Your task to perform on an android device: Do I have any events this weekend? Image 0: 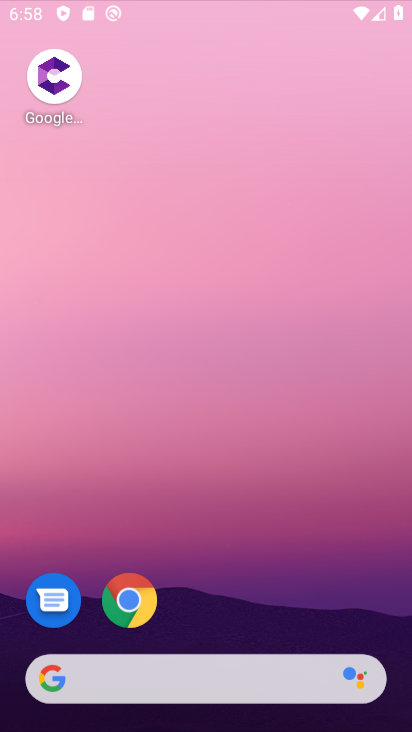
Step 0: click (270, 165)
Your task to perform on an android device: Do I have any events this weekend? Image 1: 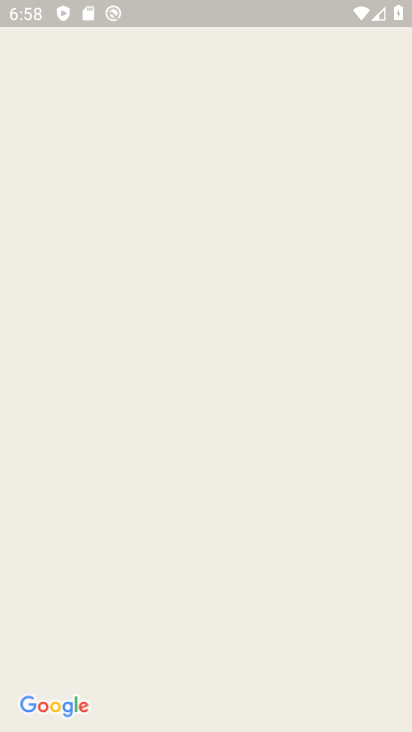
Step 1: press home button
Your task to perform on an android device: Do I have any events this weekend? Image 2: 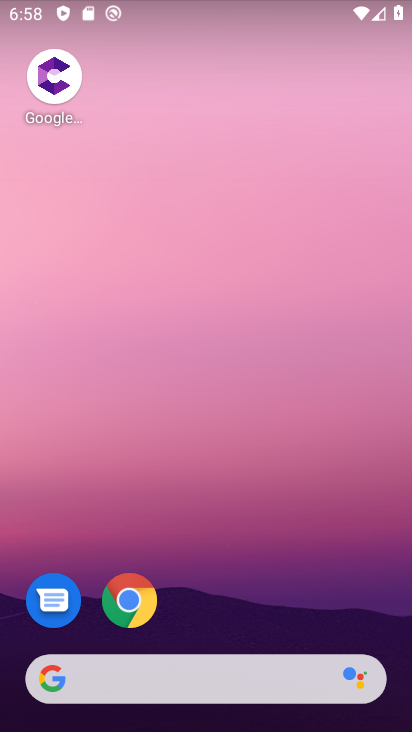
Step 2: drag from (193, 683) to (237, 37)
Your task to perform on an android device: Do I have any events this weekend? Image 3: 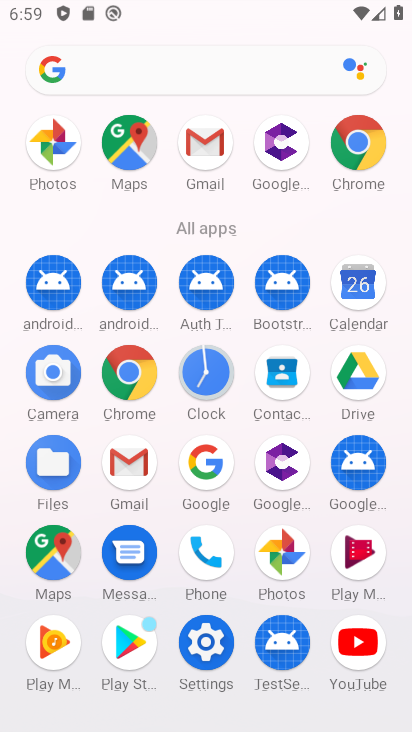
Step 3: click (346, 294)
Your task to perform on an android device: Do I have any events this weekend? Image 4: 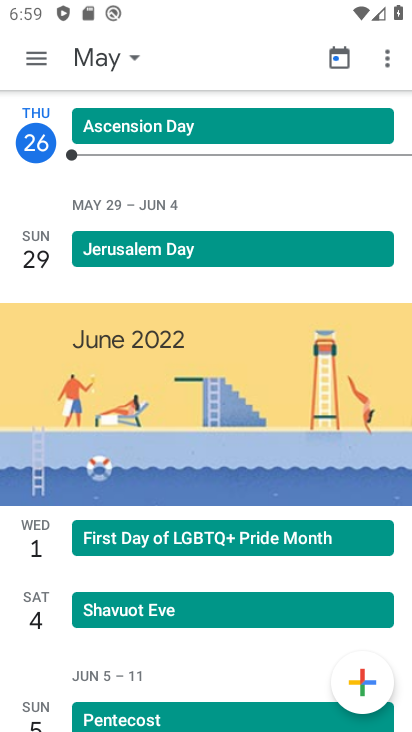
Step 4: click (41, 48)
Your task to perform on an android device: Do I have any events this weekend? Image 5: 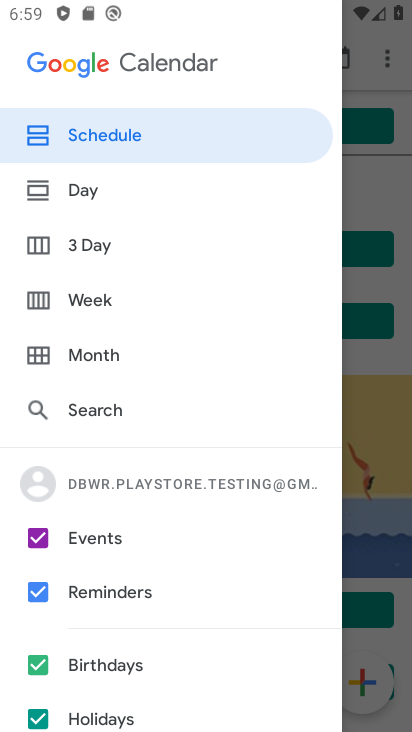
Step 5: click (94, 305)
Your task to perform on an android device: Do I have any events this weekend? Image 6: 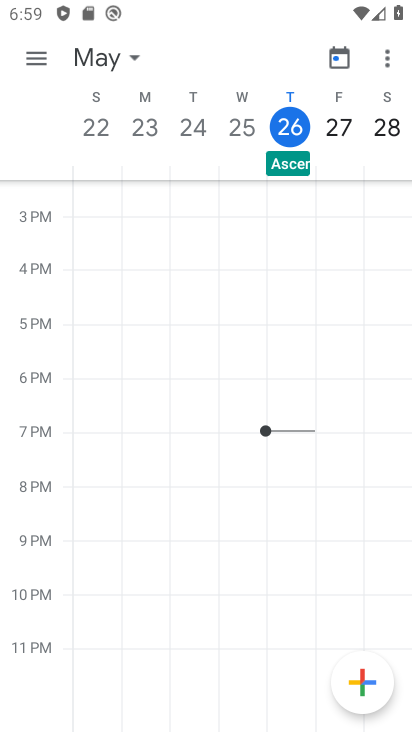
Step 6: task complete